Your task to perform on an android device: Go to network settings Image 0: 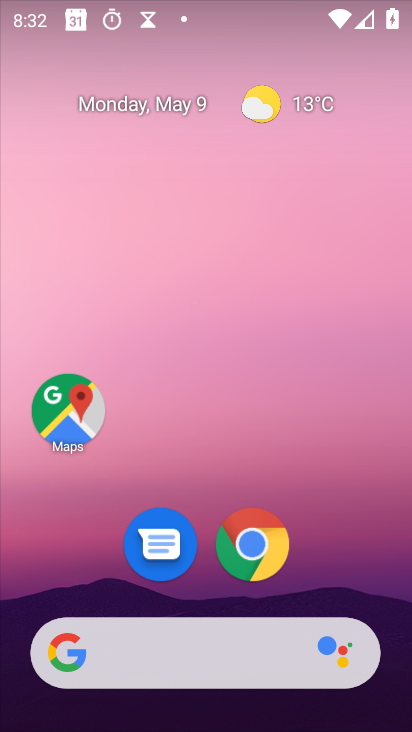
Step 0: drag from (393, 569) to (384, 63)
Your task to perform on an android device: Go to network settings Image 1: 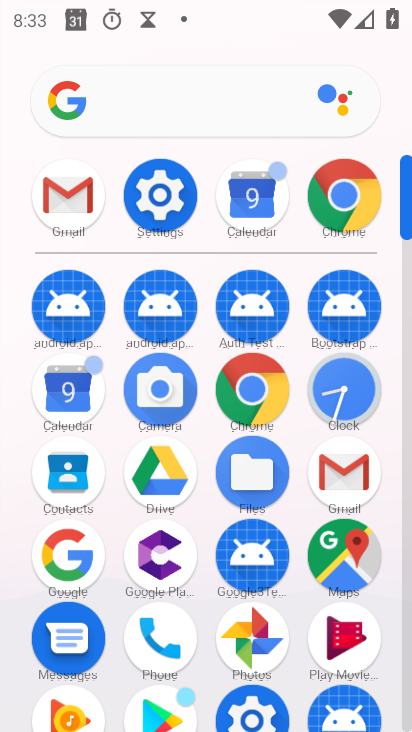
Step 1: click (153, 217)
Your task to perform on an android device: Go to network settings Image 2: 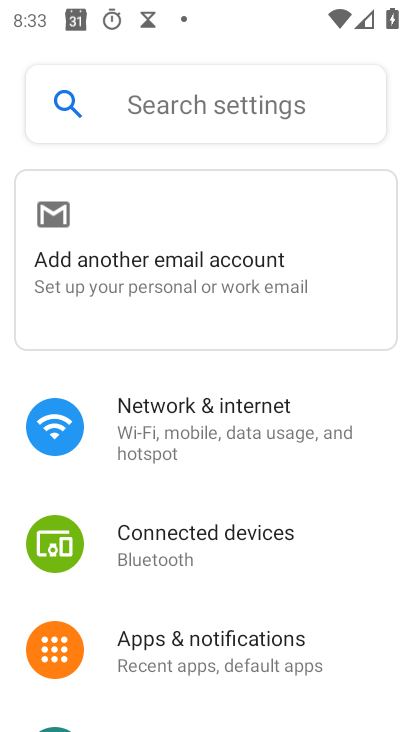
Step 2: click (208, 430)
Your task to perform on an android device: Go to network settings Image 3: 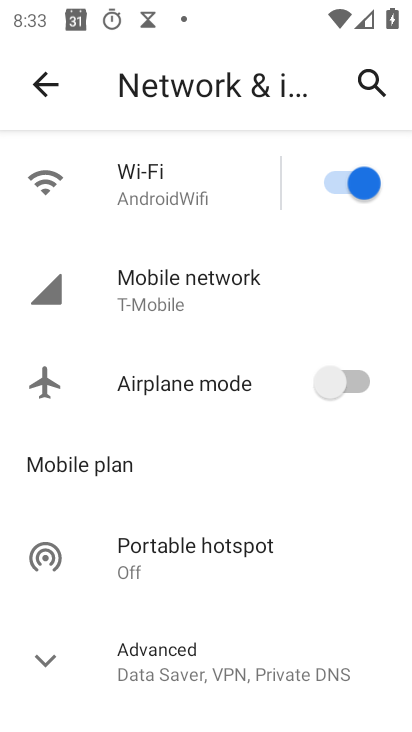
Step 3: task complete